Your task to perform on an android device: check out phone information Image 0: 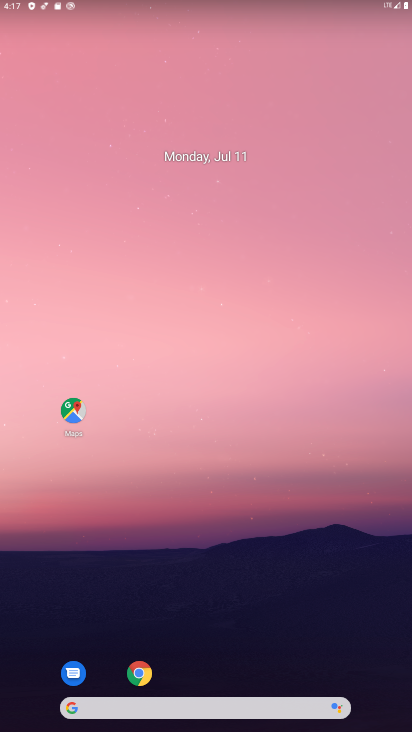
Step 0: drag from (321, 577) to (273, 78)
Your task to perform on an android device: check out phone information Image 1: 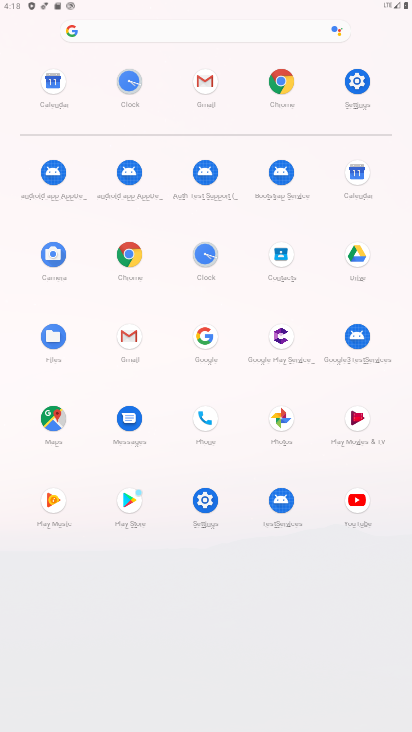
Step 1: click (206, 414)
Your task to perform on an android device: check out phone information Image 2: 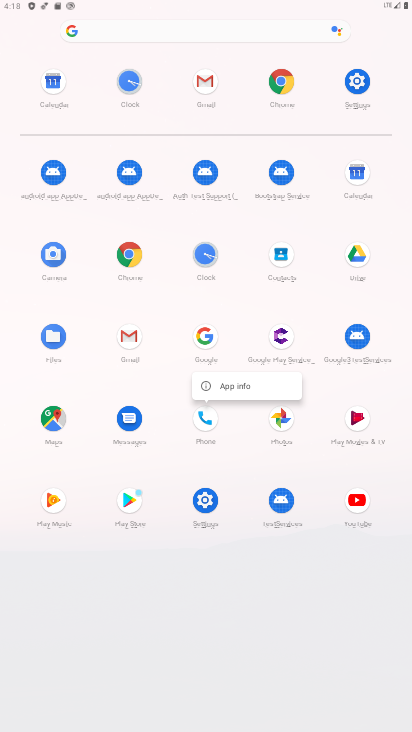
Step 2: click (227, 387)
Your task to perform on an android device: check out phone information Image 3: 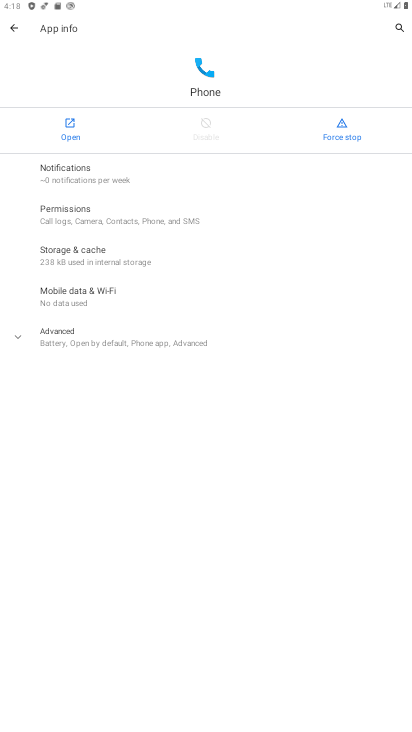
Step 3: click (89, 333)
Your task to perform on an android device: check out phone information Image 4: 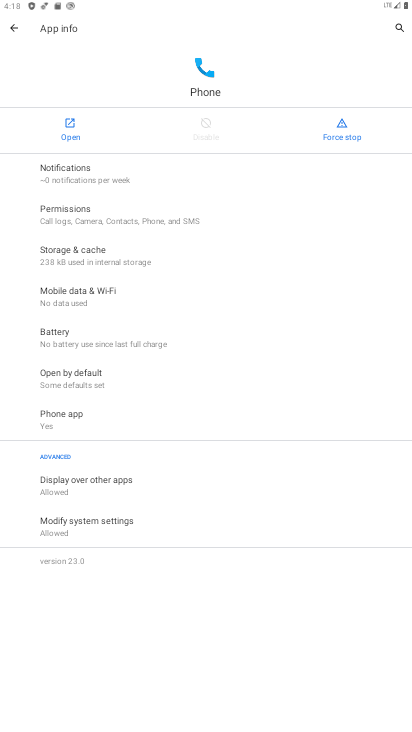
Step 4: task complete